Your task to perform on an android device: Open Reddit.com Image 0: 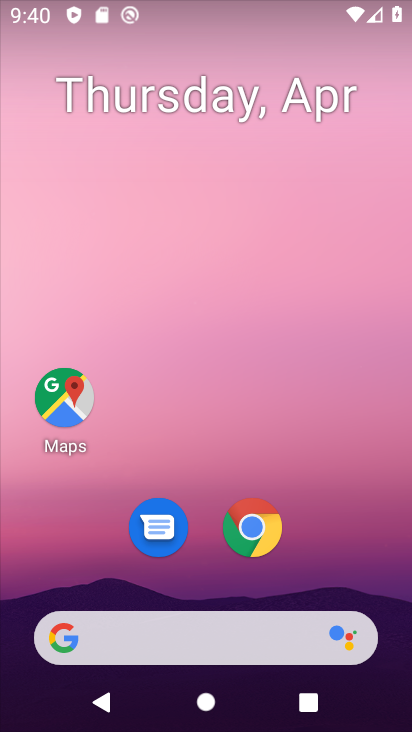
Step 0: drag from (201, 554) to (288, 100)
Your task to perform on an android device: Open Reddit.com Image 1: 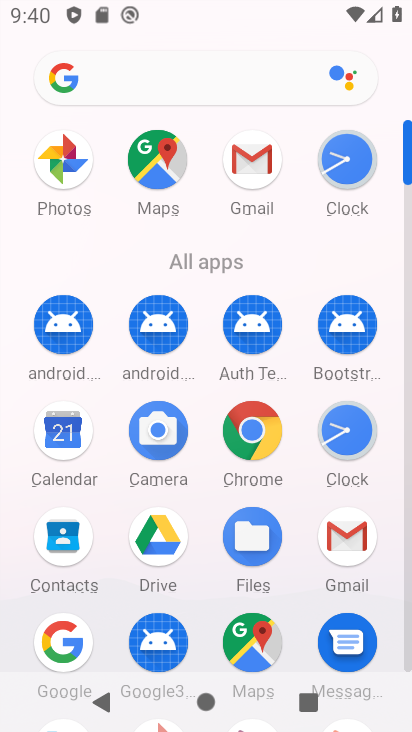
Step 1: click (254, 435)
Your task to perform on an android device: Open Reddit.com Image 2: 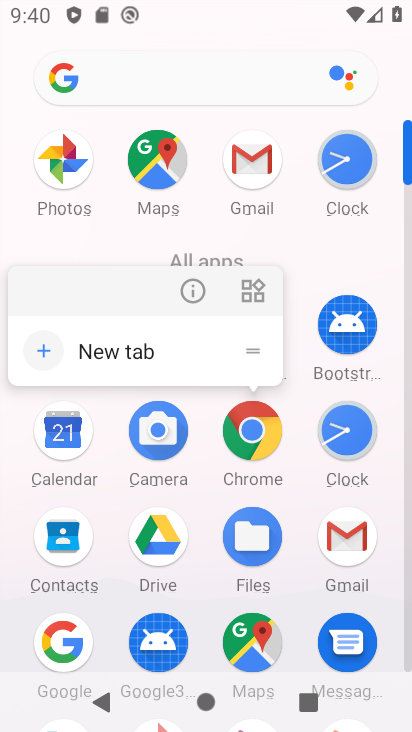
Step 2: click (249, 436)
Your task to perform on an android device: Open Reddit.com Image 3: 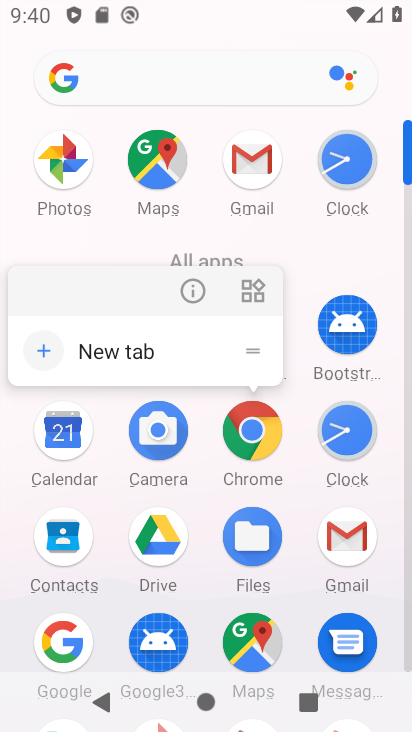
Step 3: click (254, 435)
Your task to perform on an android device: Open Reddit.com Image 4: 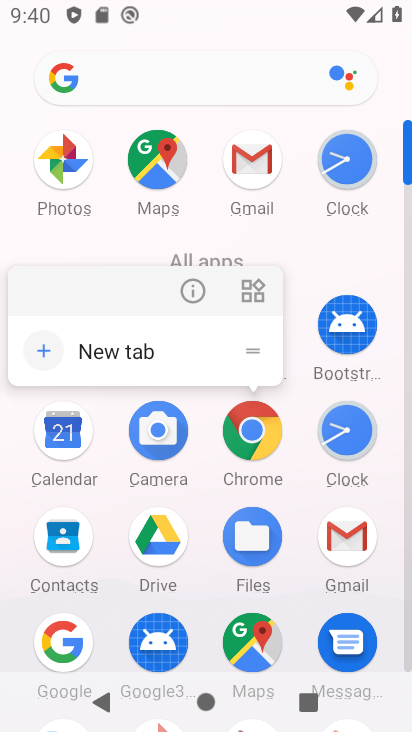
Step 4: click (253, 439)
Your task to perform on an android device: Open Reddit.com Image 5: 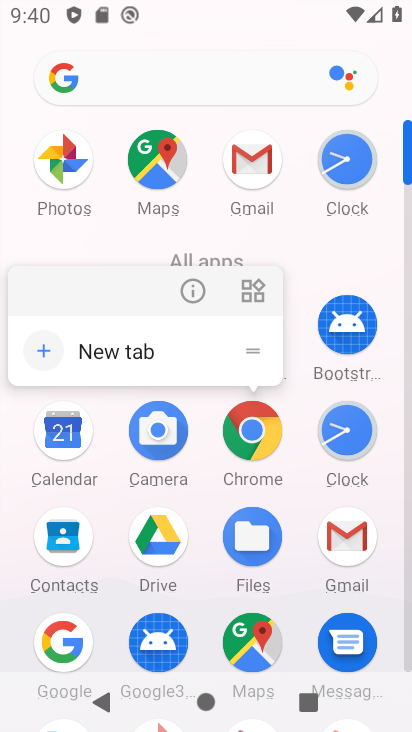
Step 5: click (264, 441)
Your task to perform on an android device: Open Reddit.com Image 6: 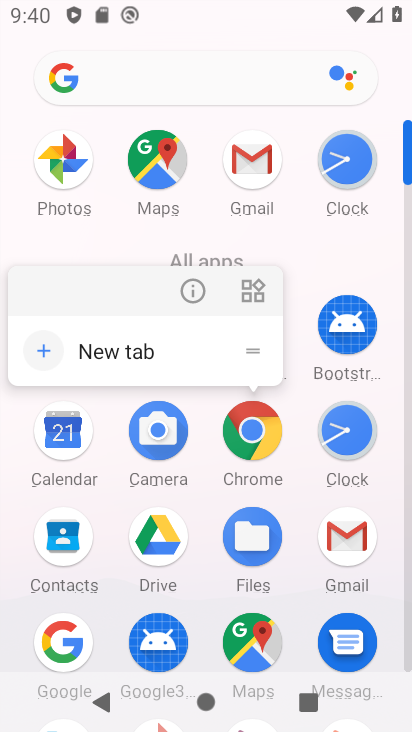
Step 6: click (258, 427)
Your task to perform on an android device: Open Reddit.com Image 7: 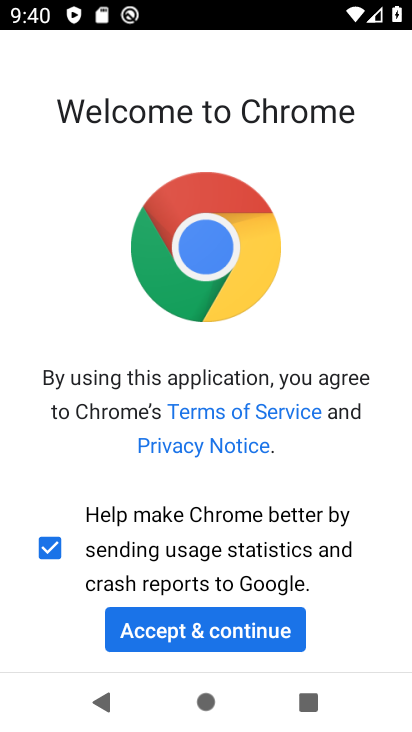
Step 7: click (203, 628)
Your task to perform on an android device: Open Reddit.com Image 8: 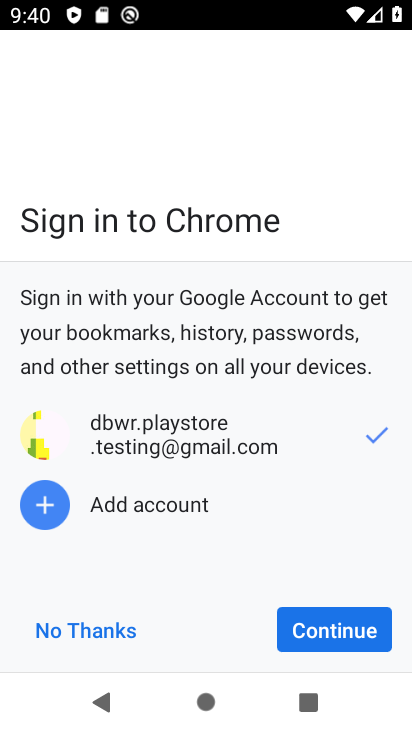
Step 8: click (340, 629)
Your task to perform on an android device: Open Reddit.com Image 9: 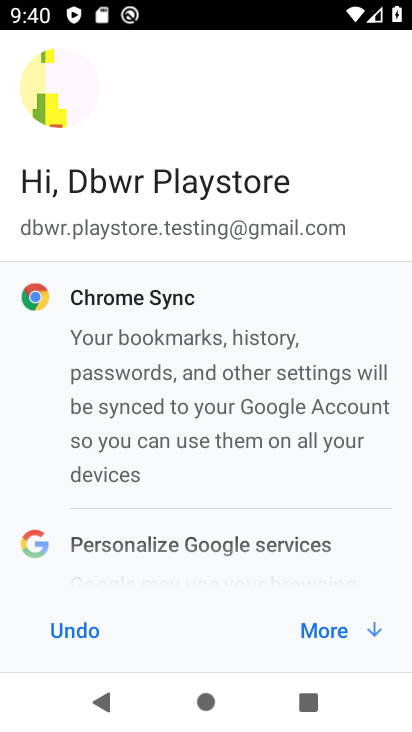
Step 9: click (339, 627)
Your task to perform on an android device: Open Reddit.com Image 10: 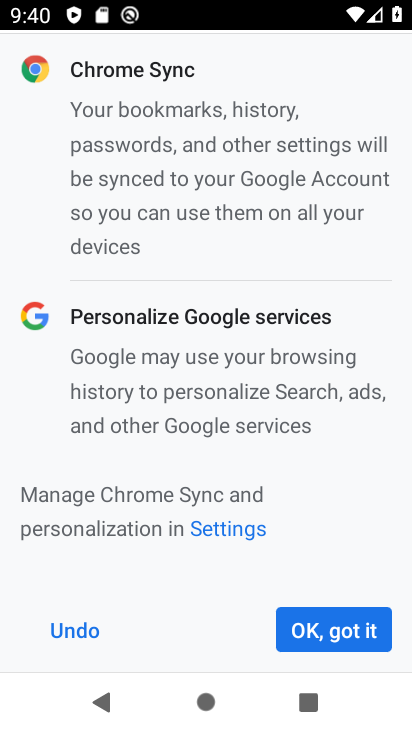
Step 10: click (339, 627)
Your task to perform on an android device: Open Reddit.com Image 11: 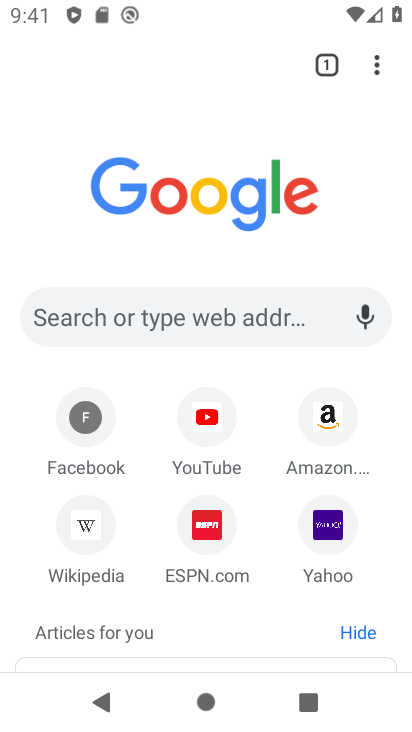
Step 11: click (110, 315)
Your task to perform on an android device: Open Reddit.com Image 12: 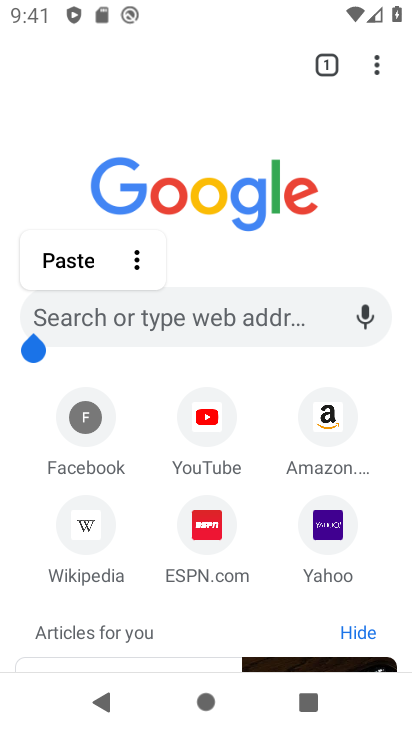
Step 12: click (102, 315)
Your task to perform on an android device: Open Reddit.com Image 13: 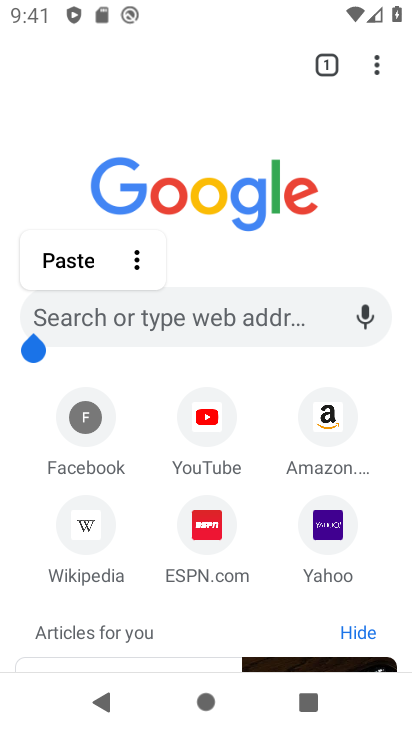
Step 13: click (329, 316)
Your task to perform on an android device: Open Reddit.com Image 14: 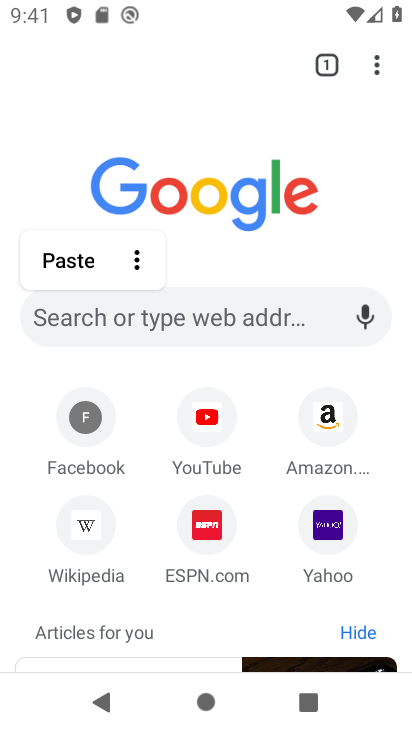
Step 14: click (222, 319)
Your task to perform on an android device: Open Reddit.com Image 15: 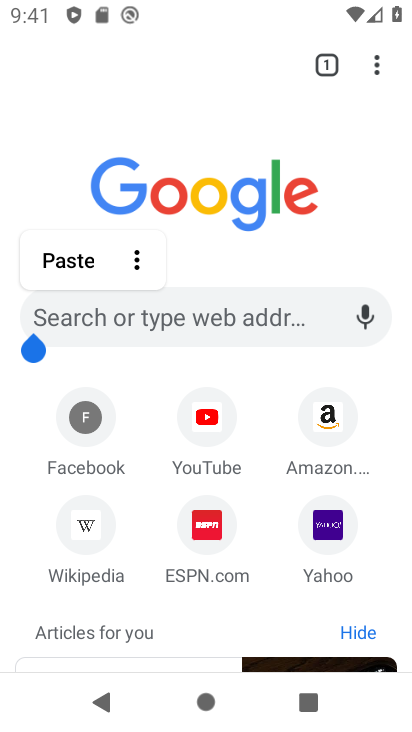
Step 15: click (70, 309)
Your task to perform on an android device: Open Reddit.com Image 16: 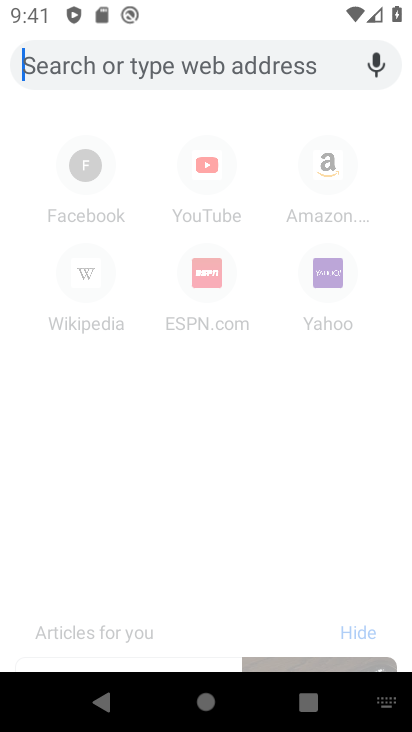
Step 16: type "reddit.com"
Your task to perform on an android device: Open Reddit.com Image 17: 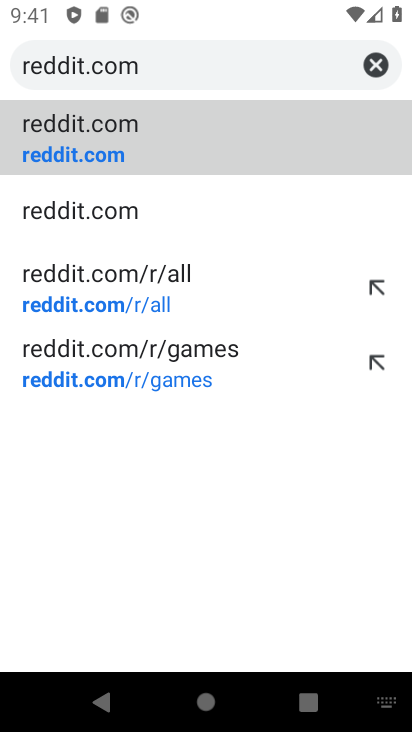
Step 17: click (126, 140)
Your task to perform on an android device: Open Reddit.com Image 18: 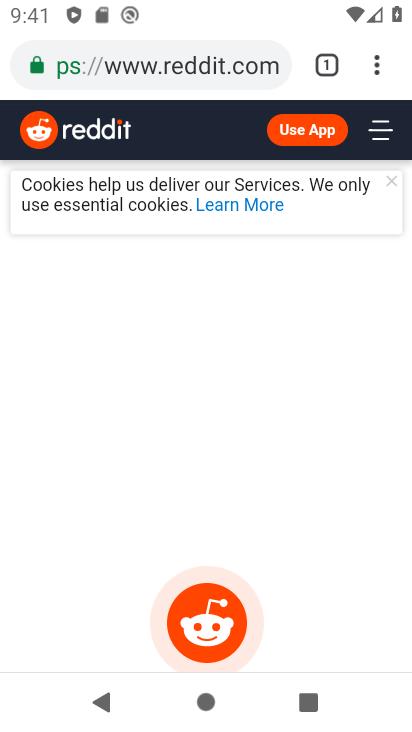
Step 18: task complete